Your task to perform on an android device: Open Yahoo.com Image 0: 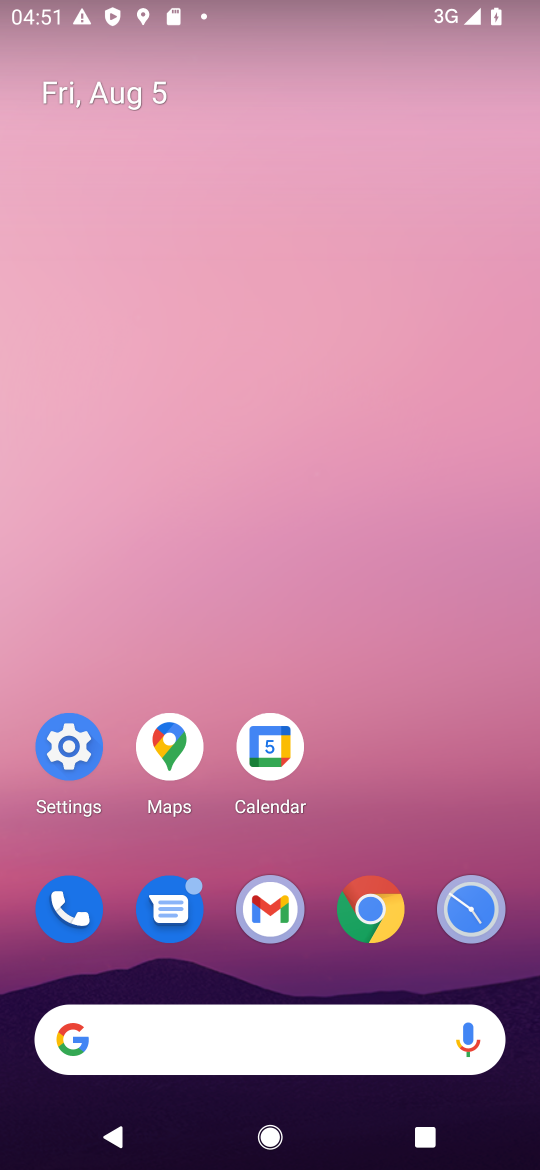
Step 0: click (369, 900)
Your task to perform on an android device: Open Yahoo.com Image 1: 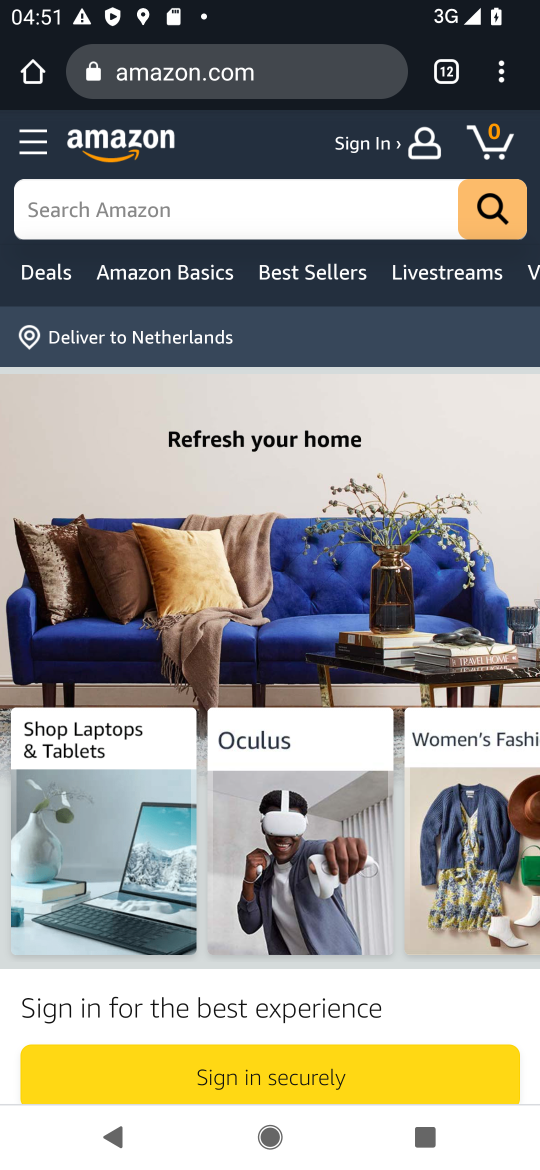
Step 1: click (509, 87)
Your task to perform on an android device: Open Yahoo.com Image 2: 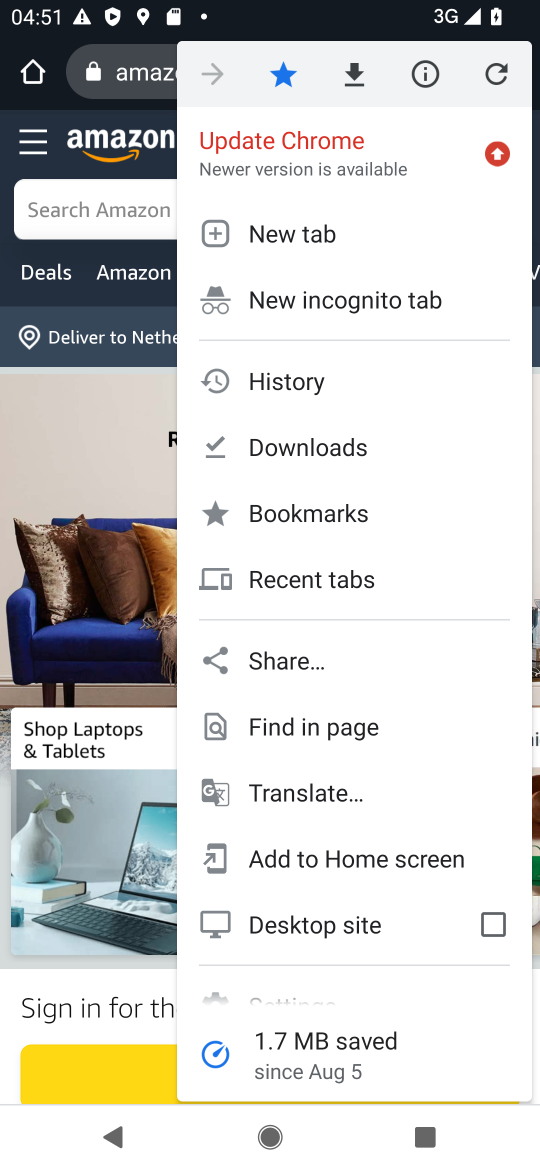
Step 2: click (309, 226)
Your task to perform on an android device: Open Yahoo.com Image 3: 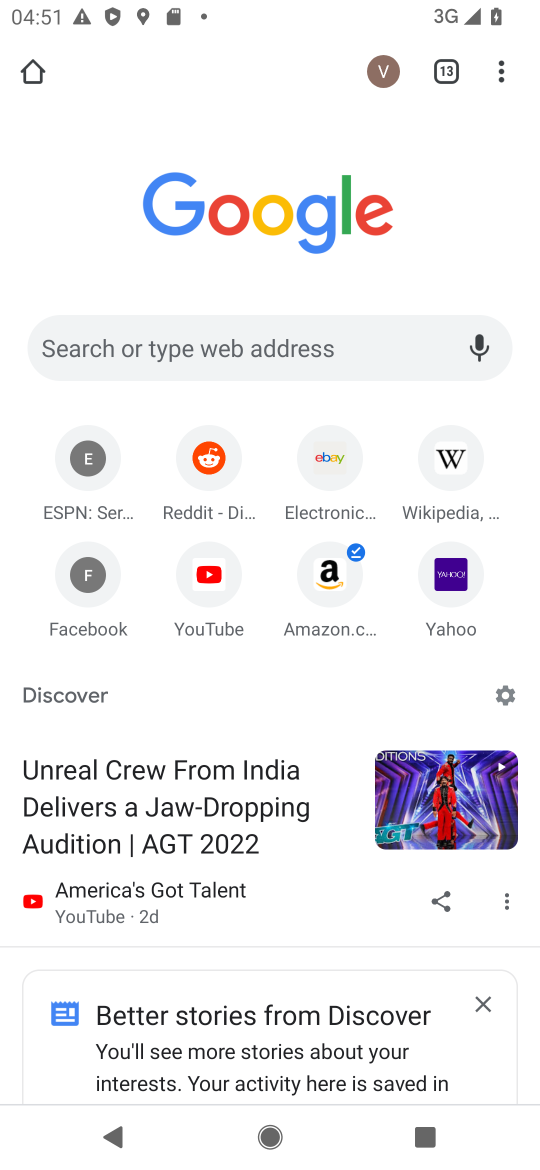
Step 3: click (448, 569)
Your task to perform on an android device: Open Yahoo.com Image 4: 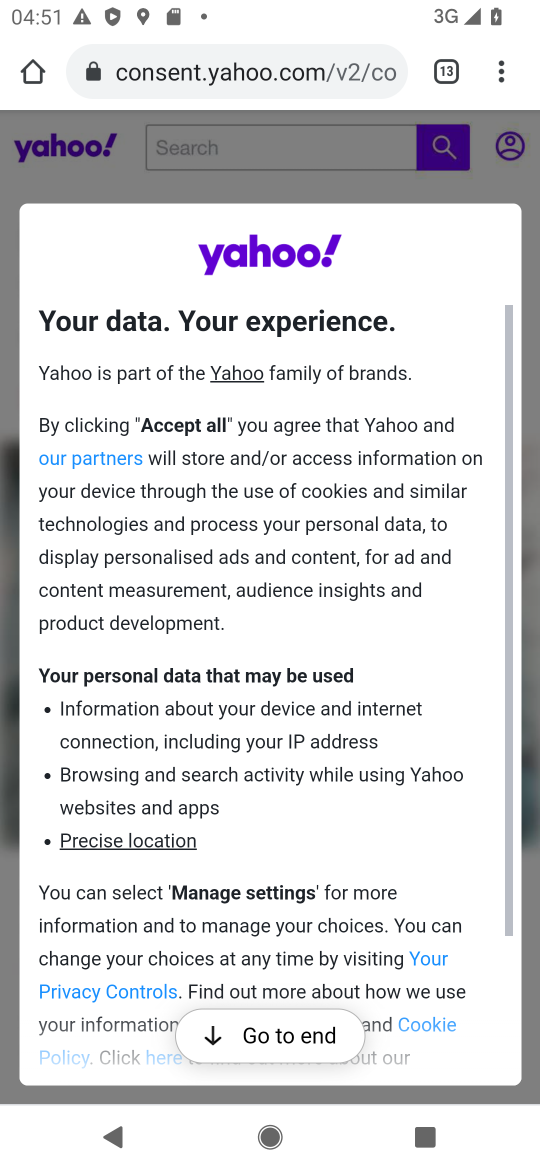
Step 4: click (241, 1048)
Your task to perform on an android device: Open Yahoo.com Image 5: 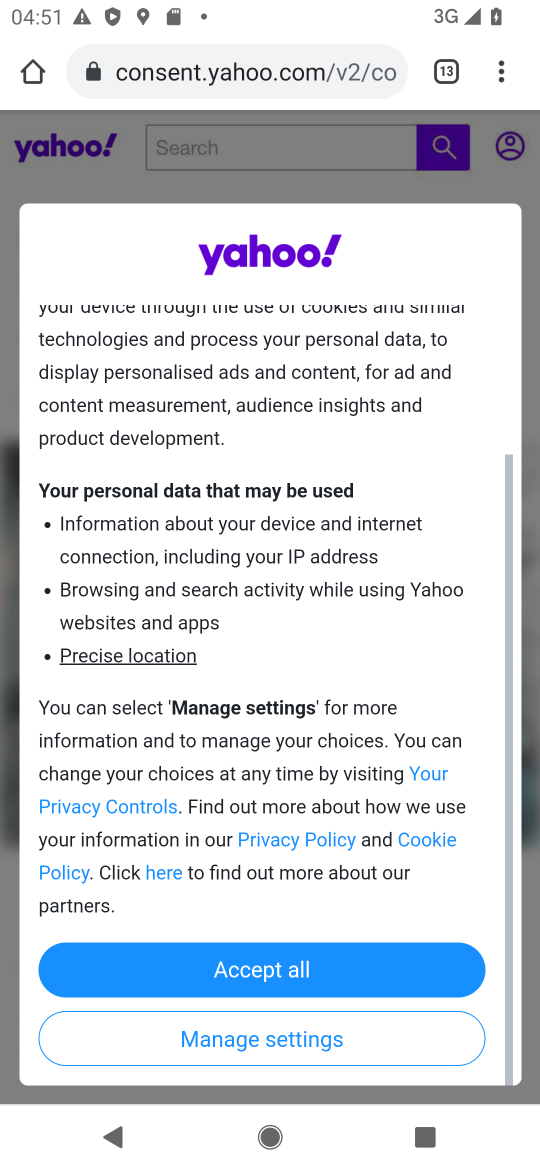
Step 5: click (246, 977)
Your task to perform on an android device: Open Yahoo.com Image 6: 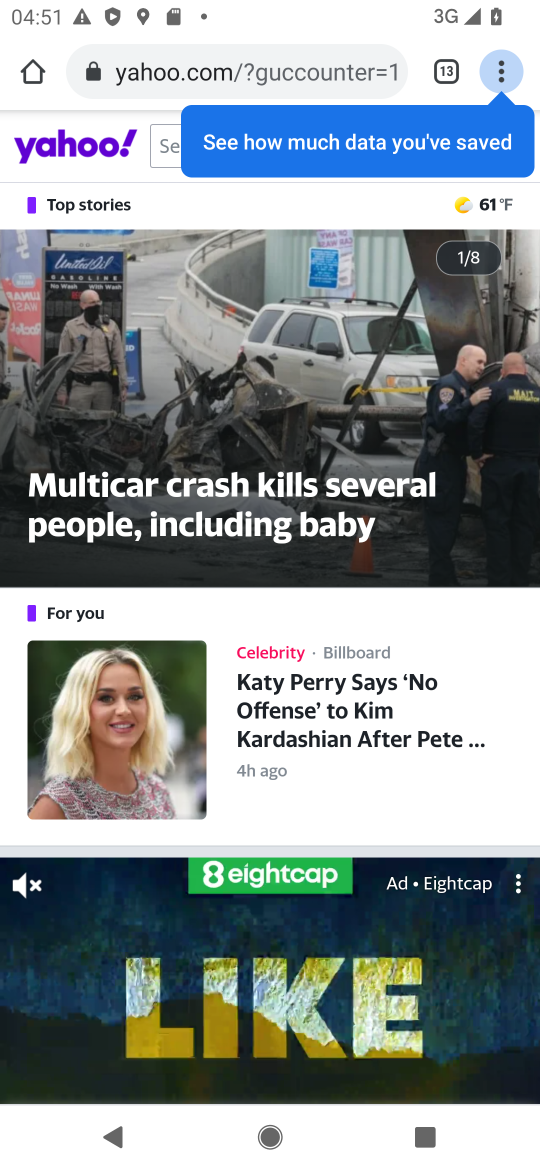
Step 6: task complete